Your task to perform on an android device: Show me popular games on the Play Store Image 0: 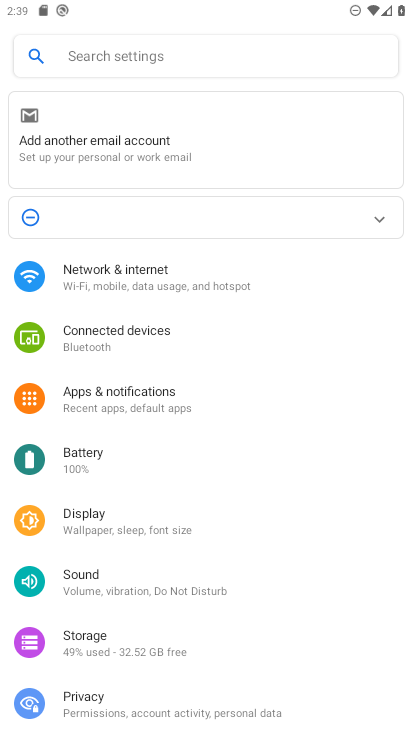
Step 0: press home button
Your task to perform on an android device: Show me popular games on the Play Store Image 1: 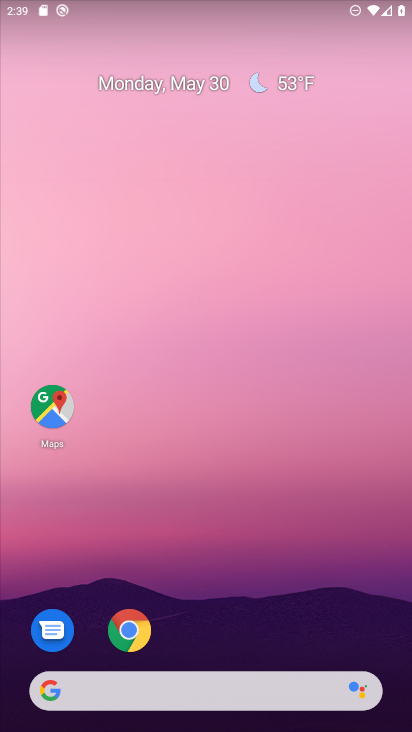
Step 1: click (195, 218)
Your task to perform on an android device: Show me popular games on the Play Store Image 2: 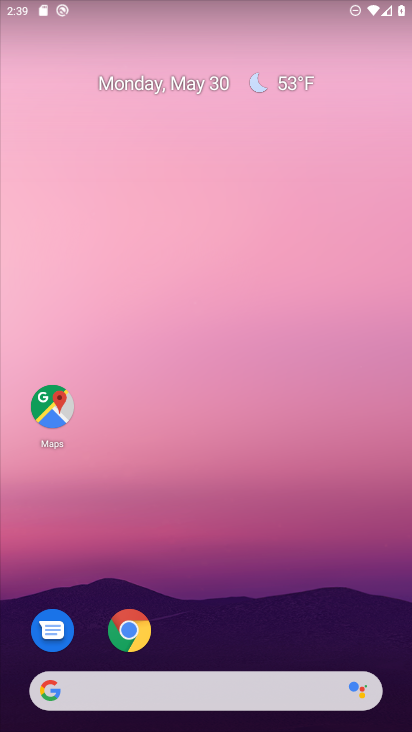
Step 2: drag from (265, 694) to (259, 129)
Your task to perform on an android device: Show me popular games on the Play Store Image 3: 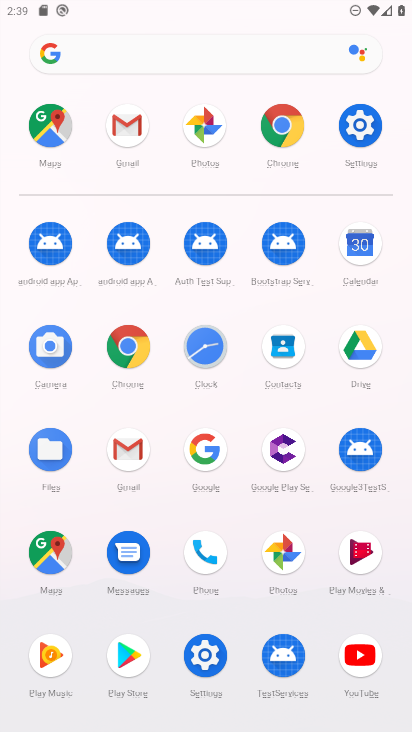
Step 3: click (136, 661)
Your task to perform on an android device: Show me popular games on the Play Store Image 4: 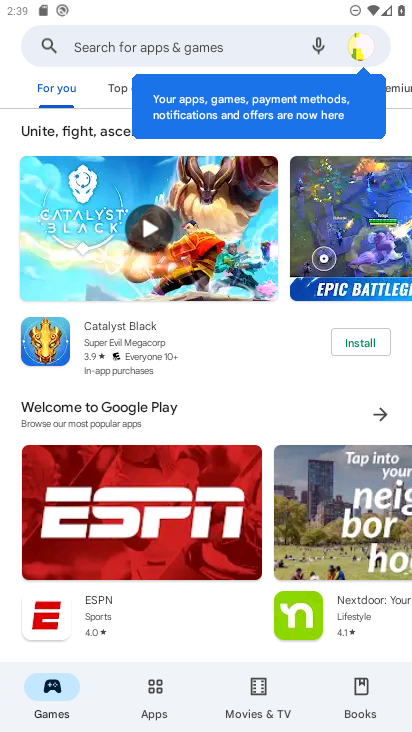
Step 4: drag from (279, 607) to (260, 36)
Your task to perform on an android device: Show me popular games on the Play Store Image 5: 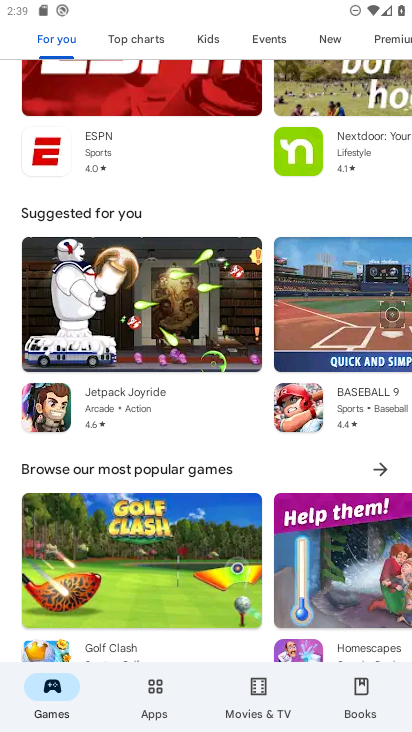
Step 5: click (369, 470)
Your task to perform on an android device: Show me popular games on the Play Store Image 6: 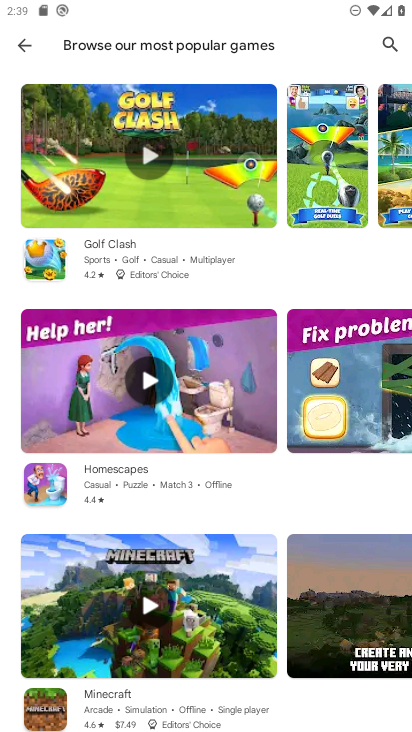
Step 6: task complete